Your task to perform on an android device: stop showing notifications on the lock screen Image 0: 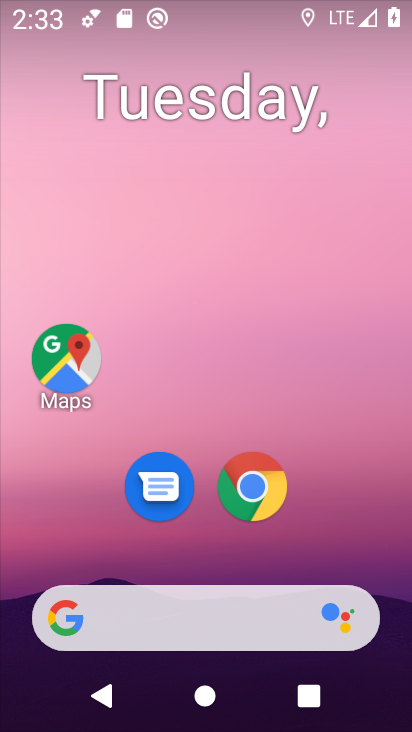
Step 0: press home button
Your task to perform on an android device: stop showing notifications on the lock screen Image 1: 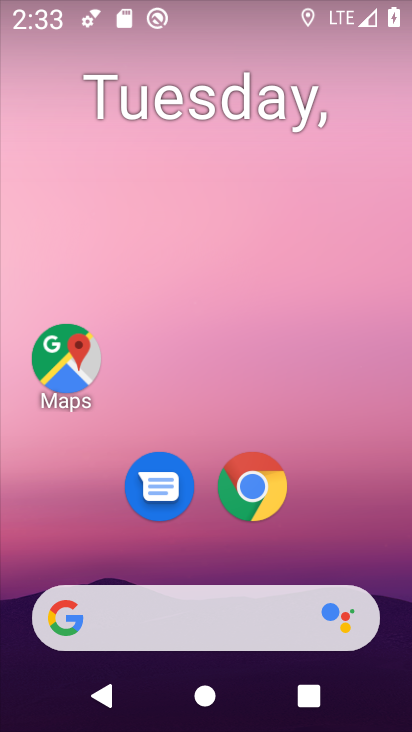
Step 1: drag from (350, 522) to (343, 105)
Your task to perform on an android device: stop showing notifications on the lock screen Image 2: 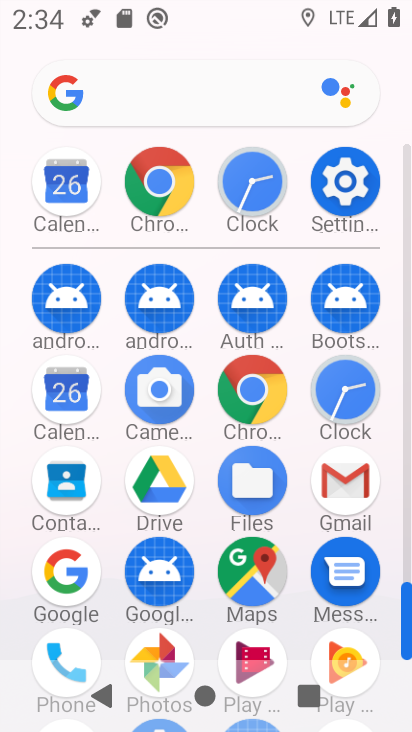
Step 2: click (358, 185)
Your task to perform on an android device: stop showing notifications on the lock screen Image 3: 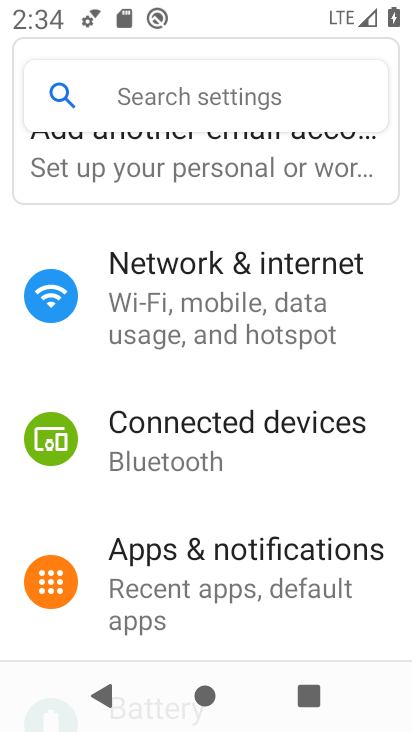
Step 3: drag from (321, 482) to (321, 336)
Your task to perform on an android device: stop showing notifications on the lock screen Image 4: 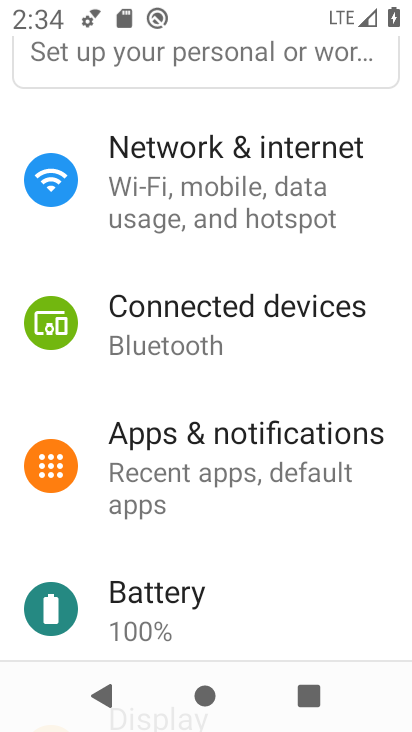
Step 4: drag from (349, 549) to (358, 431)
Your task to perform on an android device: stop showing notifications on the lock screen Image 5: 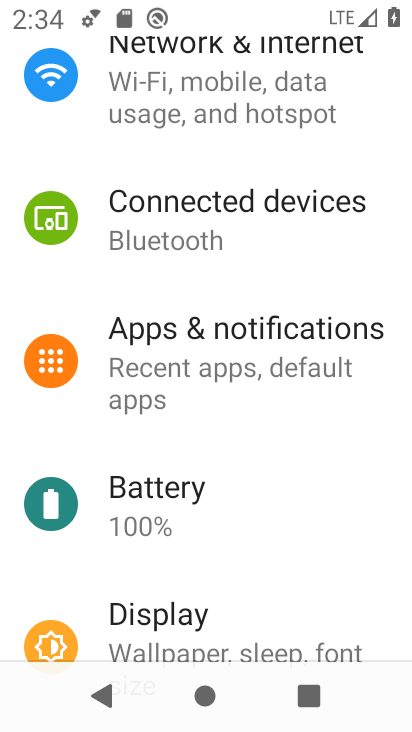
Step 5: drag from (286, 513) to (291, 354)
Your task to perform on an android device: stop showing notifications on the lock screen Image 6: 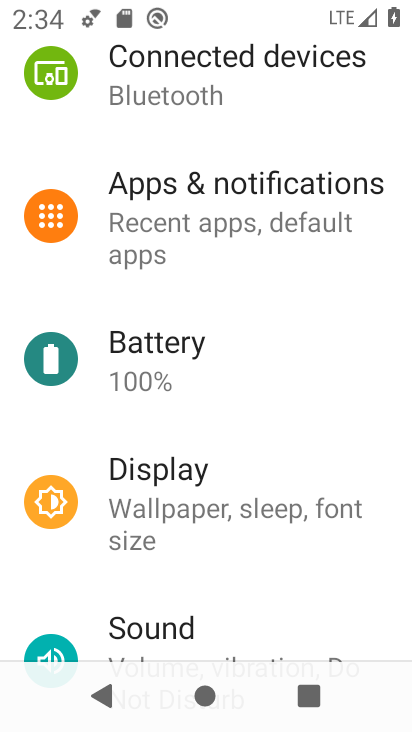
Step 6: drag from (316, 487) to (317, 372)
Your task to perform on an android device: stop showing notifications on the lock screen Image 7: 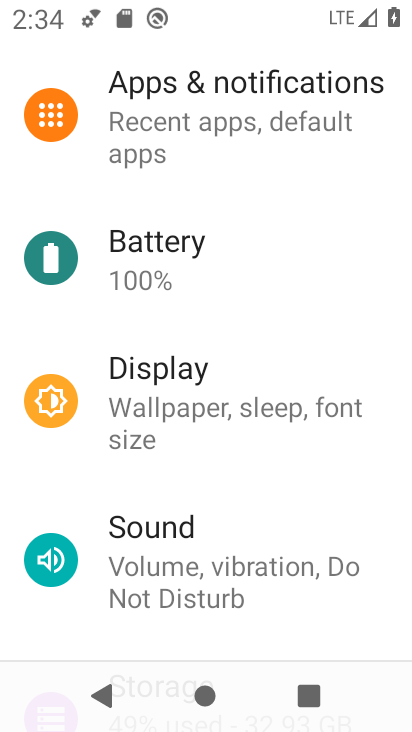
Step 7: drag from (320, 525) to (319, 393)
Your task to perform on an android device: stop showing notifications on the lock screen Image 8: 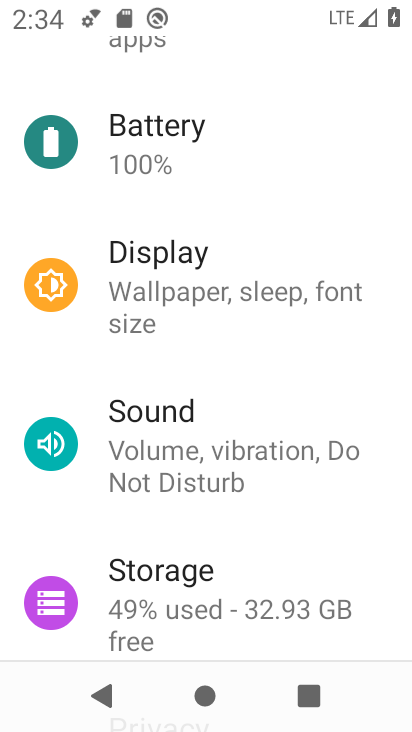
Step 8: drag from (324, 583) to (325, 455)
Your task to perform on an android device: stop showing notifications on the lock screen Image 9: 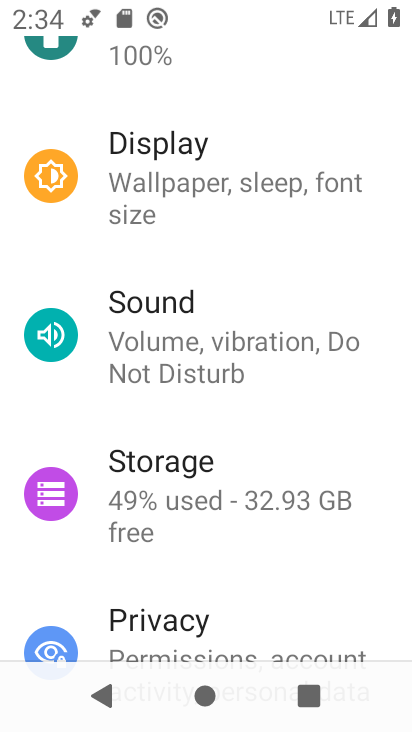
Step 9: drag from (326, 588) to (322, 469)
Your task to perform on an android device: stop showing notifications on the lock screen Image 10: 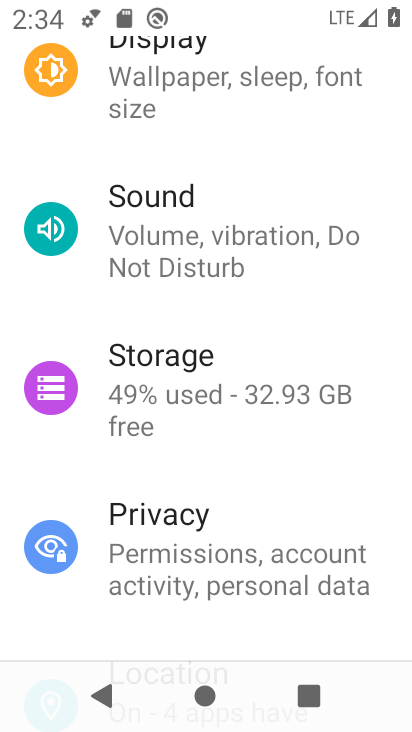
Step 10: drag from (321, 578) to (321, 470)
Your task to perform on an android device: stop showing notifications on the lock screen Image 11: 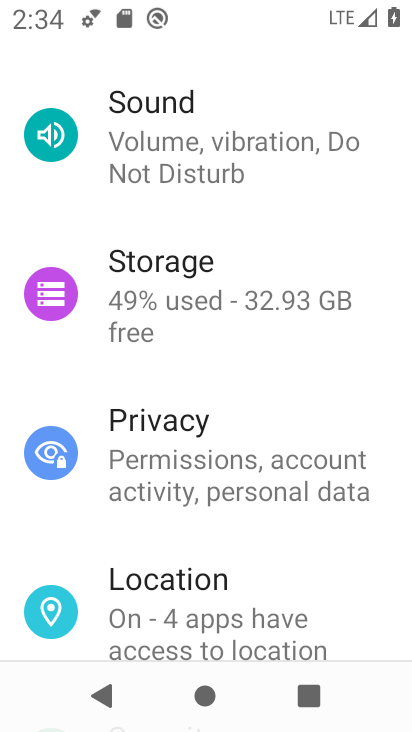
Step 11: drag from (330, 593) to (330, 393)
Your task to perform on an android device: stop showing notifications on the lock screen Image 12: 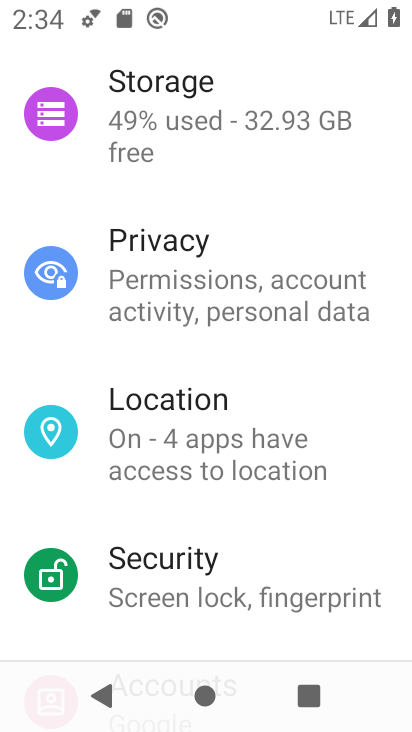
Step 12: drag from (306, 594) to (308, 453)
Your task to perform on an android device: stop showing notifications on the lock screen Image 13: 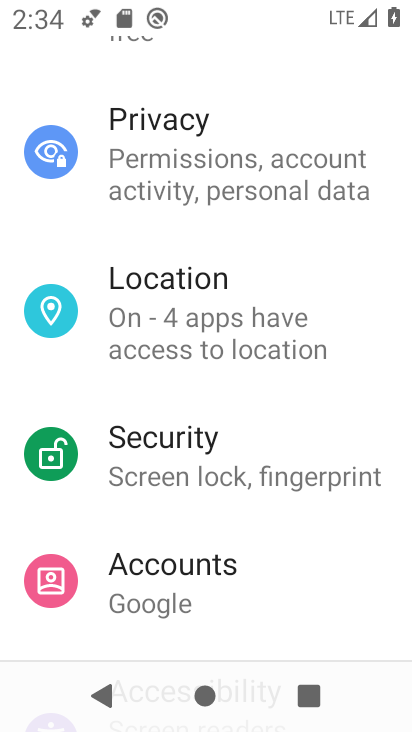
Step 13: drag from (305, 602) to (309, 416)
Your task to perform on an android device: stop showing notifications on the lock screen Image 14: 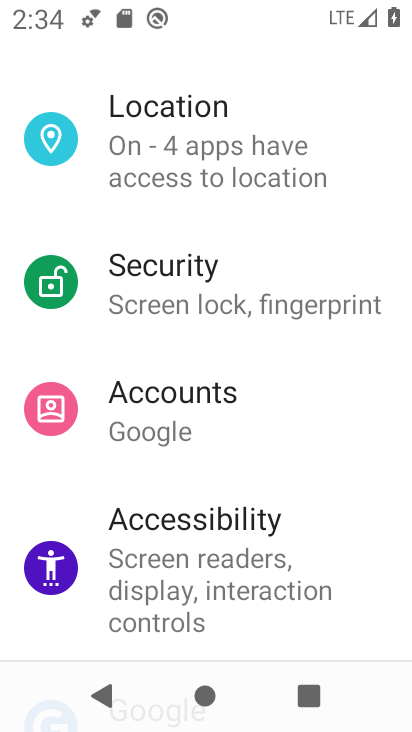
Step 14: drag from (315, 525) to (315, 437)
Your task to perform on an android device: stop showing notifications on the lock screen Image 15: 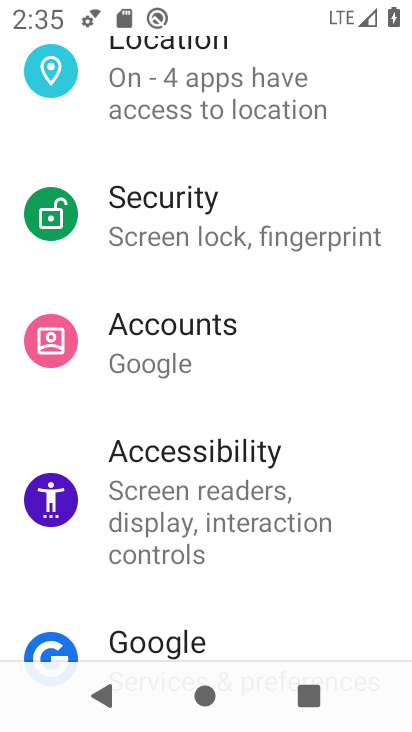
Step 15: drag from (309, 591) to (307, 494)
Your task to perform on an android device: stop showing notifications on the lock screen Image 16: 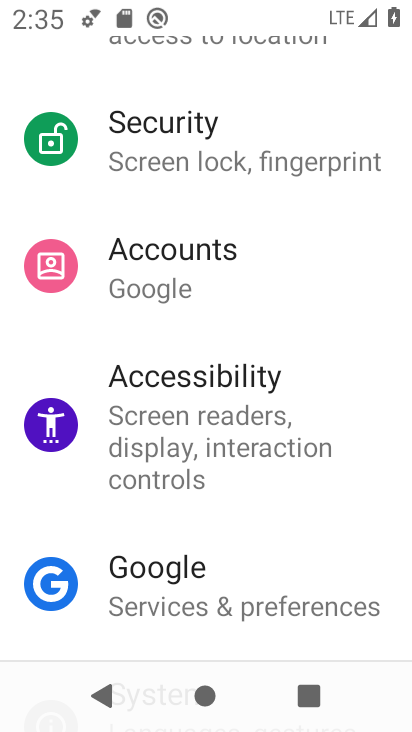
Step 16: drag from (307, 601) to (305, 503)
Your task to perform on an android device: stop showing notifications on the lock screen Image 17: 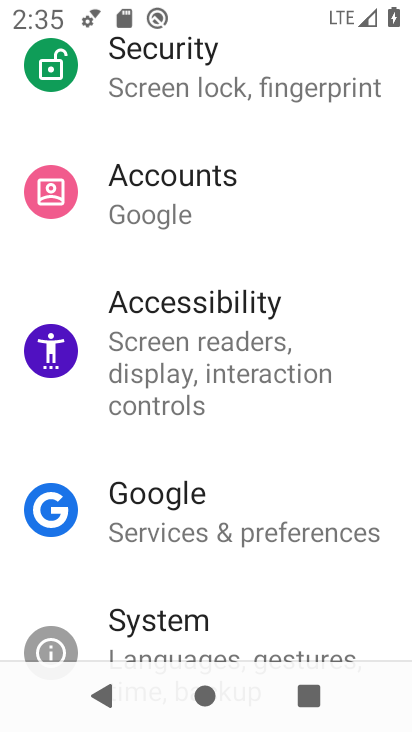
Step 17: drag from (302, 593) to (300, 465)
Your task to perform on an android device: stop showing notifications on the lock screen Image 18: 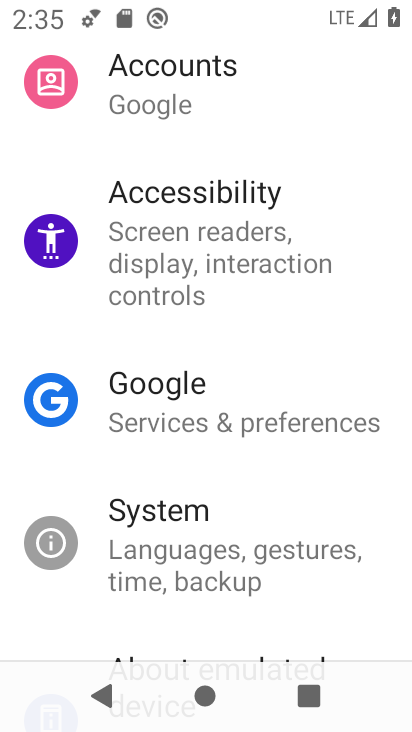
Step 18: drag from (292, 601) to (292, 488)
Your task to perform on an android device: stop showing notifications on the lock screen Image 19: 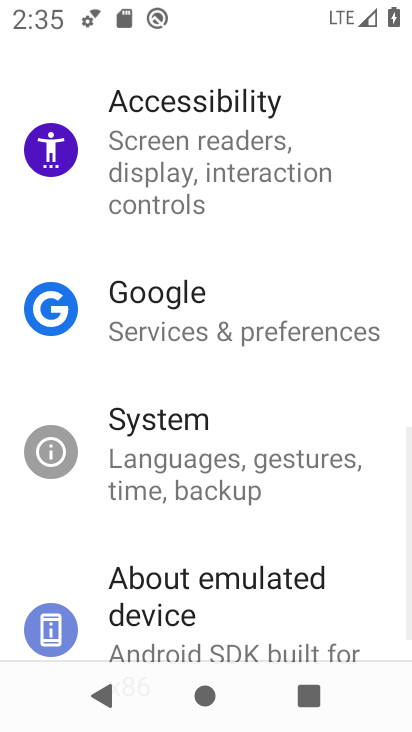
Step 19: drag from (298, 603) to (301, 474)
Your task to perform on an android device: stop showing notifications on the lock screen Image 20: 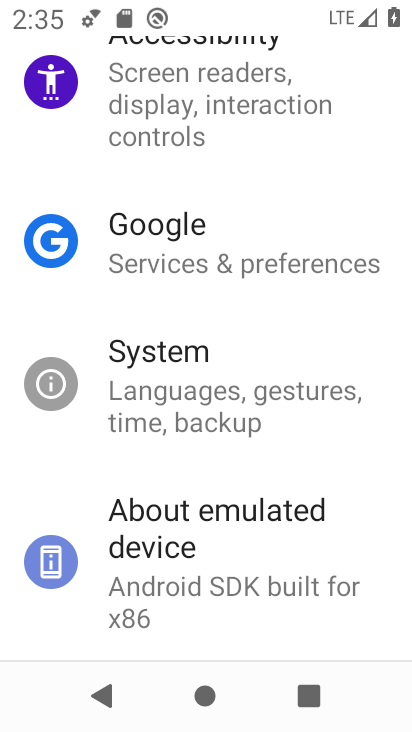
Step 20: drag from (356, 324) to (357, 408)
Your task to perform on an android device: stop showing notifications on the lock screen Image 21: 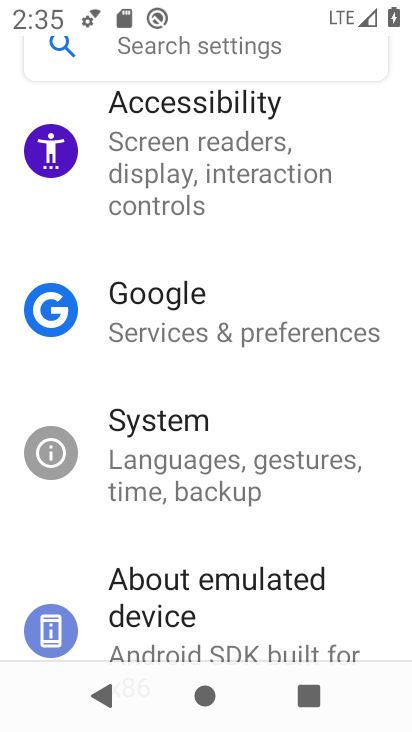
Step 21: drag from (338, 211) to (344, 290)
Your task to perform on an android device: stop showing notifications on the lock screen Image 22: 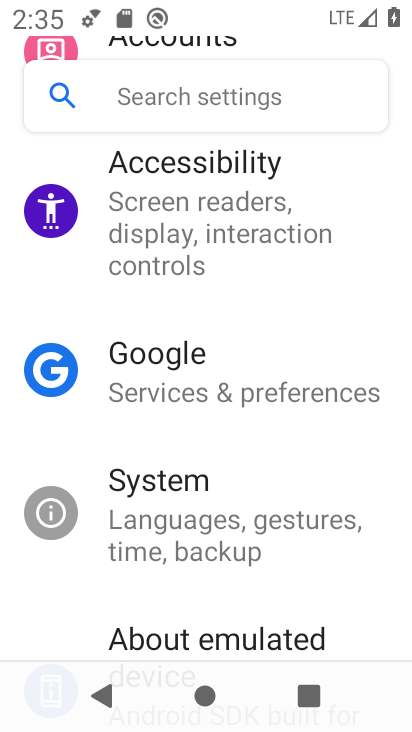
Step 22: drag from (351, 298) to (356, 416)
Your task to perform on an android device: stop showing notifications on the lock screen Image 23: 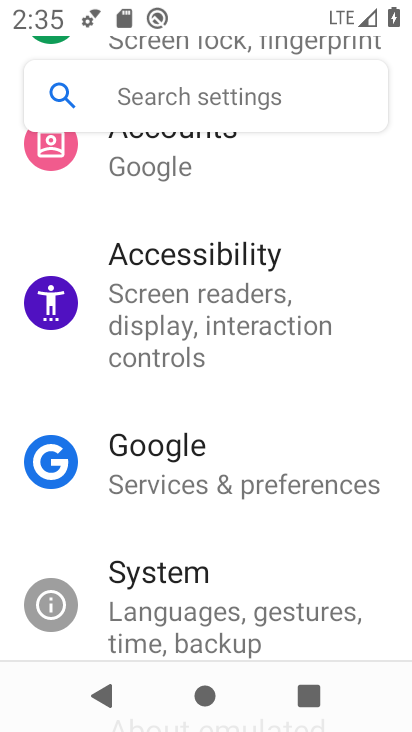
Step 23: drag from (364, 275) to (367, 400)
Your task to perform on an android device: stop showing notifications on the lock screen Image 24: 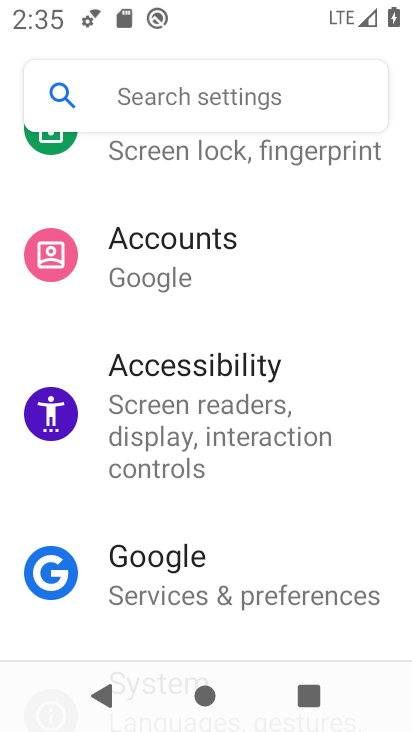
Step 24: drag from (352, 257) to (363, 372)
Your task to perform on an android device: stop showing notifications on the lock screen Image 25: 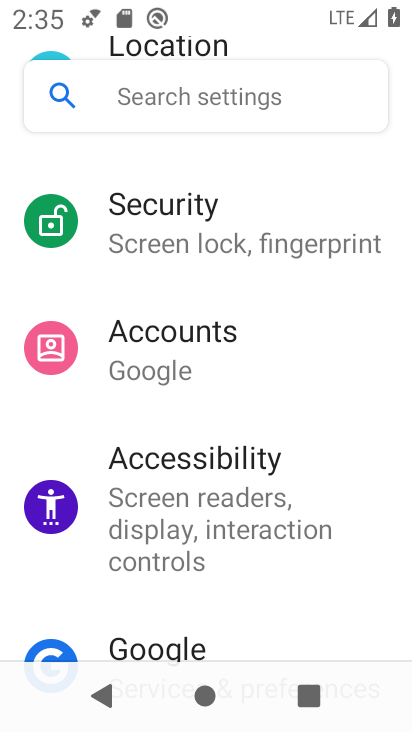
Step 25: drag from (362, 264) to (364, 384)
Your task to perform on an android device: stop showing notifications on the lock screen Image 26: 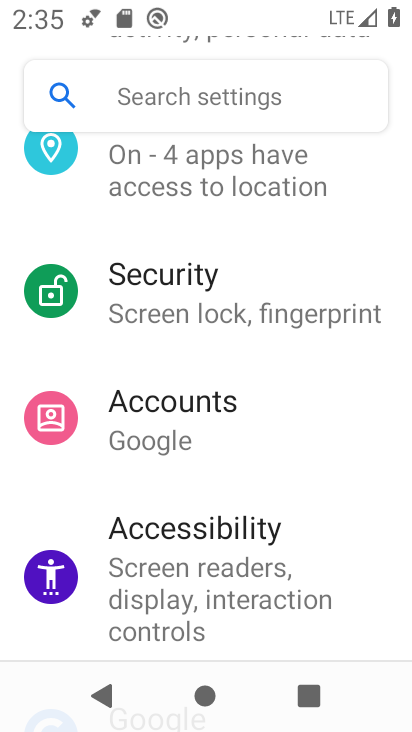
Step 26: drag from (349, 210) to (348, 366)
Your task to perform on an android device: stop showing notifications on the lock screen Image 27: 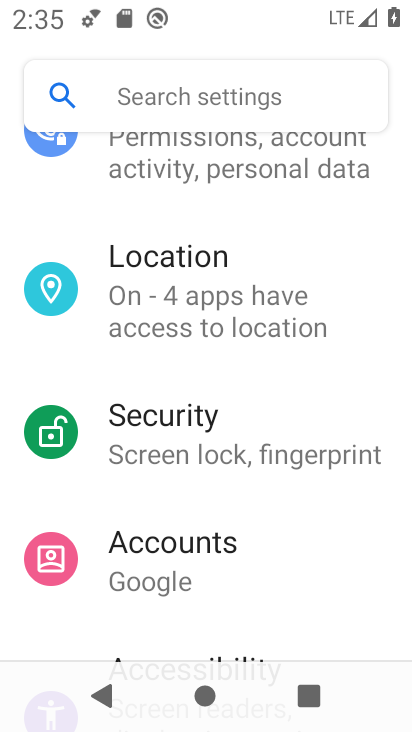
Step 27: drag from (341, 201) to (349, 368)
Your task to perform on an android device: stop showing notifications on the lock screen Image 28: 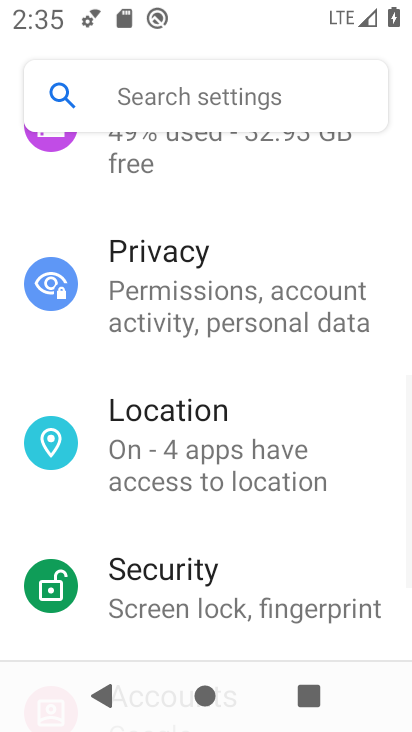
Step 28: drag from (340, 189) to (345, 375)
Your task to perform on an android device: stop showing notifications on the lock screen Image 29: 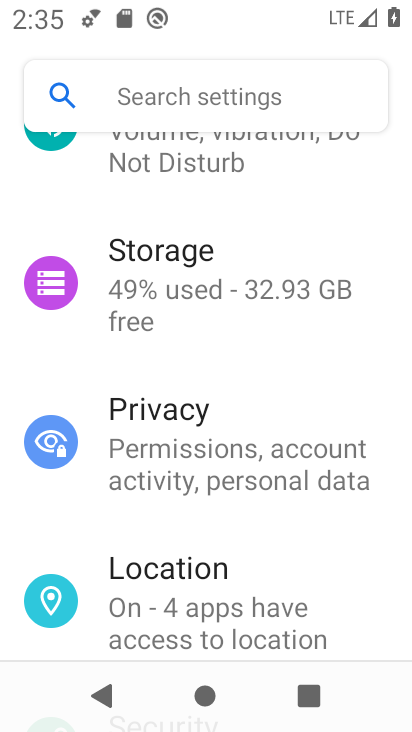
Step 29: drag from (336, 170) to (352, 333)
Your task to perform on an android device: stop showing notifications on the lock screen Image 30: 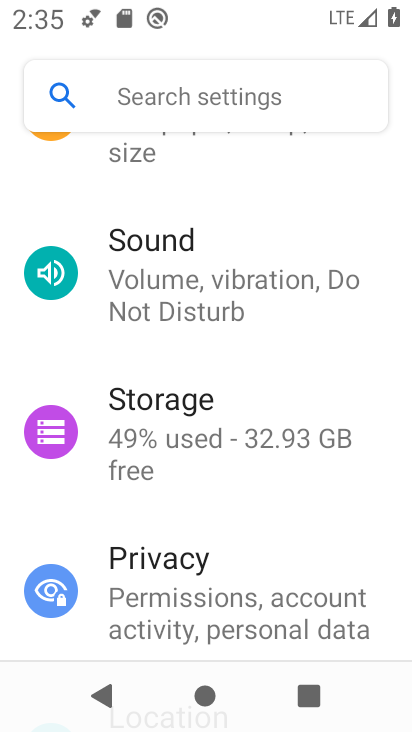
Step 30: drag from (312, 204) to (318, 326)
Your task to perform on an android device: stop showing notifications on the lock screen Image 31: 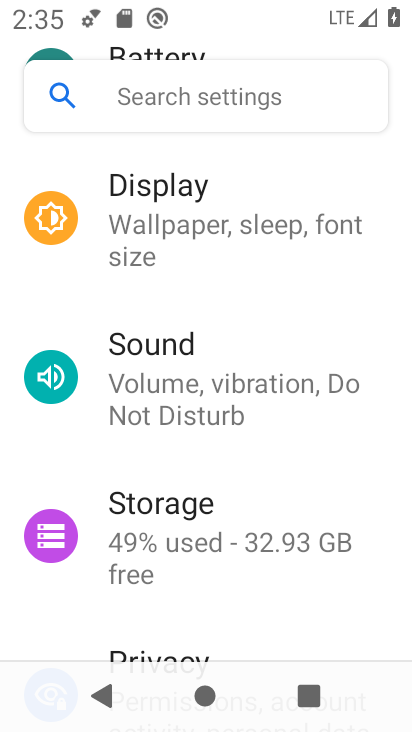
Step 31: drag from (318, 179) to (320, 318)
Your task to perform on an android device: stop showing notifications on the lock screen Image 32: 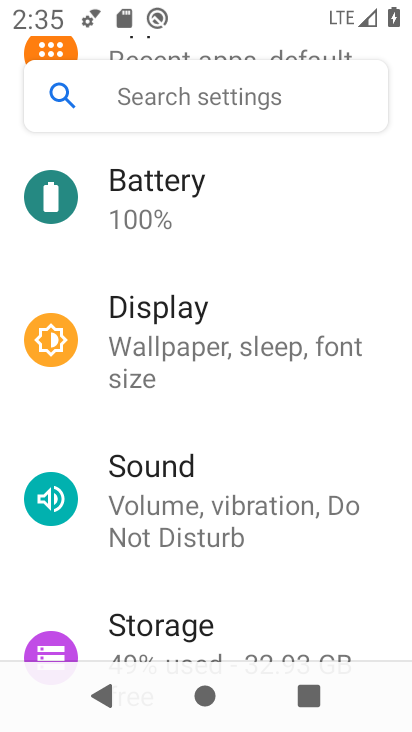
Step 32: drag from (303, 201) to (313, 366)
Your task to perform on an android device: stop showing notifications on the lock screen Image 33: 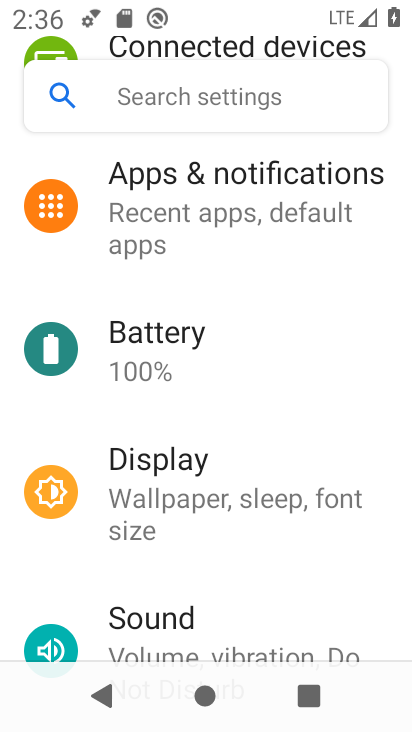
Step 33: click (287, 219)
Your task to perform on an android device: stop showing notifications on the lock screen Image 34: 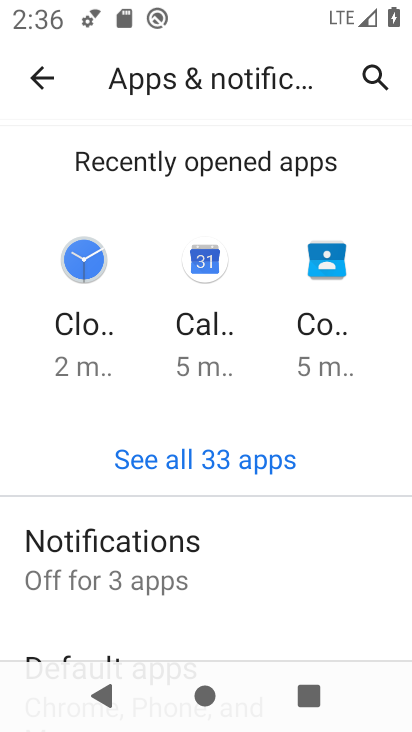
Step 34: click (169, 554)
Your task to perform on an android device: stop showing notifications on the lock screen Image 35: 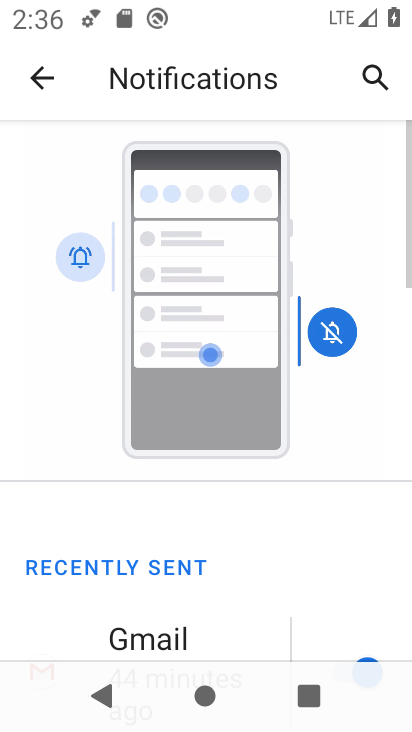
Step 35: drag from (267, 556) to (264, 357)
Your task to perform on an android device: stop showing notifications on the lock screen Image 36: 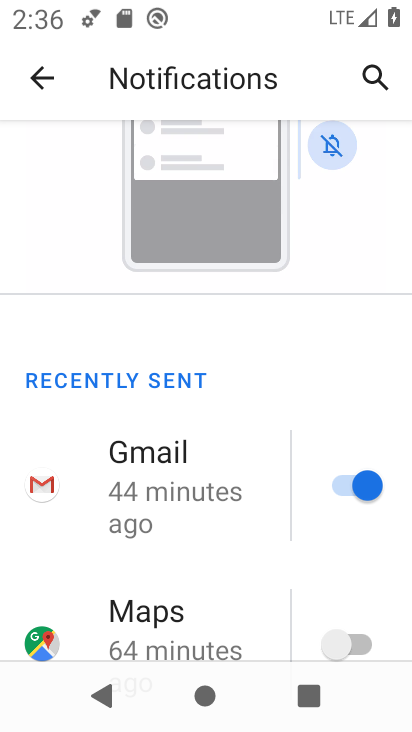
Step 36: drag from (238, 565) to (245, 430)
Your task to perform on an android device: stop showing notifications on the lock screen Image 37: 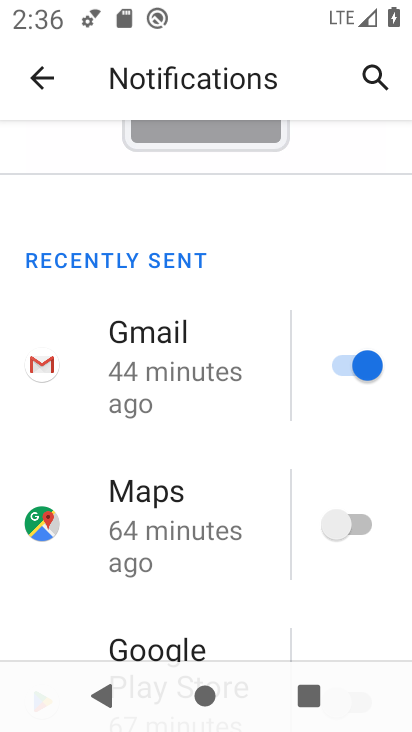
Step 37: drag from (243, 581) to (242, 377)
Your task to perform on an android device: stop showing notifications on the lock screen Image 38: 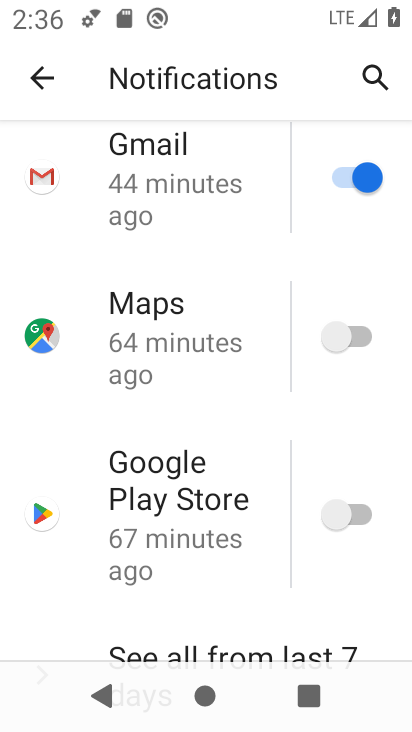
Step 38: drag from (227, 551) to (225, 395)
Your task to perform on an android device: stop showing notifications on the lock screen Image 39: 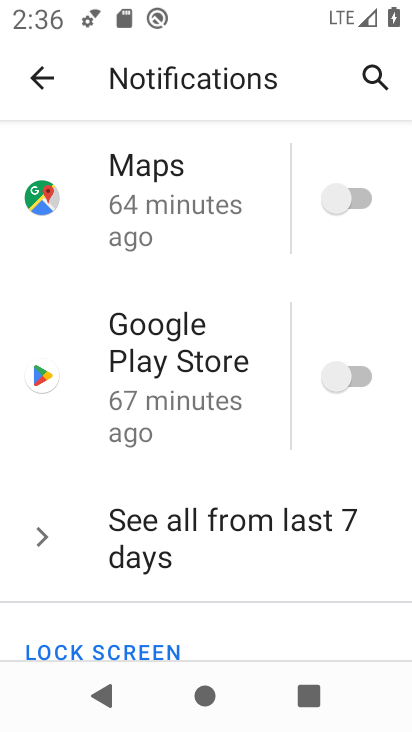
Step 39: drag from (253, 563) to (264, 436)
Your task to perform on an android device: stop showing notifications on the lock screen Image 40: 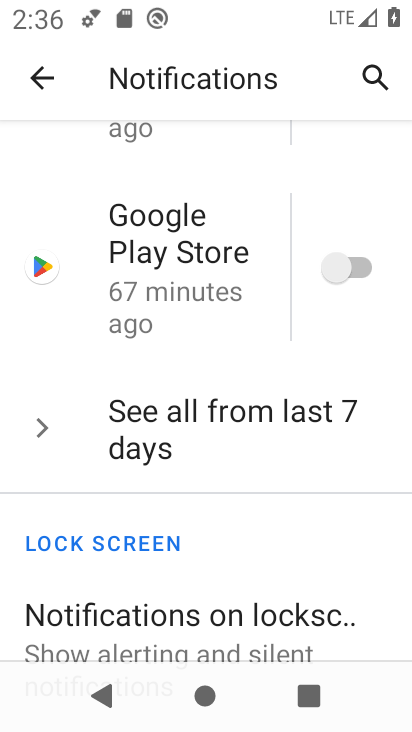
Step 40: drag from (271, 550) to (265, 460)
Your task to perform on an android device: stop showing notifications on the lock screen Image 41: 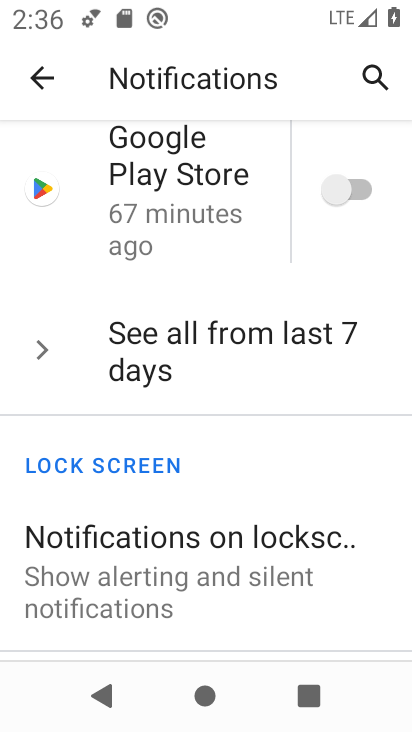
Step 41: click (258, 580)
Your task to perform on an android device: stop showing notifications on the lock screen Image 42: 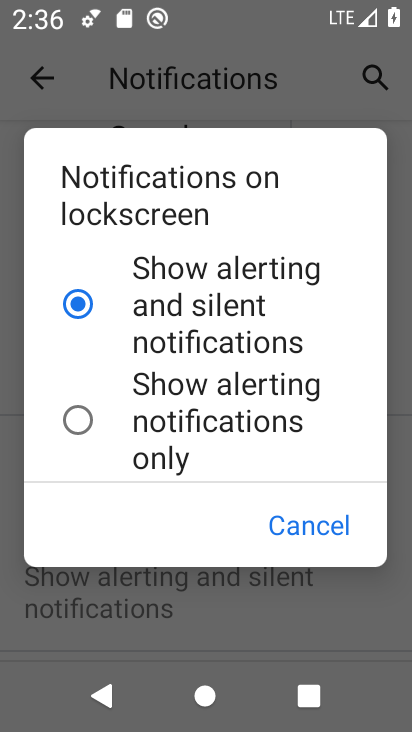
Step 42: drag from (216, 414) to (216, 299)
Your task to perform on an android device: stop showing notifications on the lock screen Image 43: 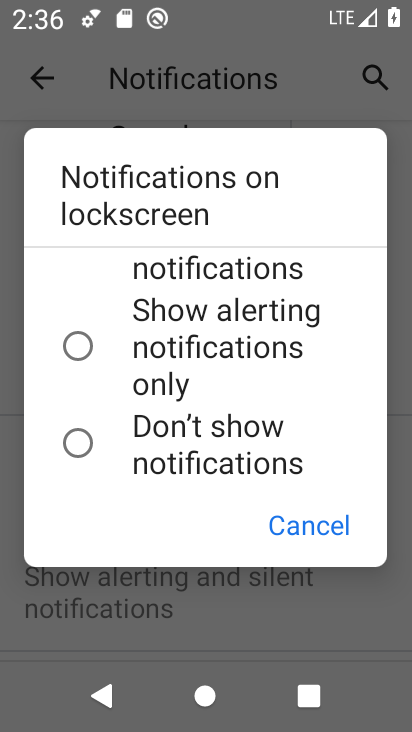
Step 43: click (216, 444)
Your task to perform on an android device: stop showing notifications on the lock screen Image 44: 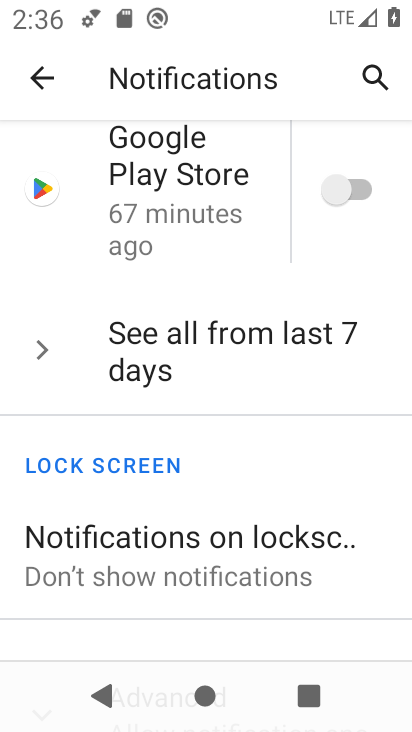
Step 44: task complete